Your task to perform on an android device: Show me productivity apps on the Play Store Image 0: 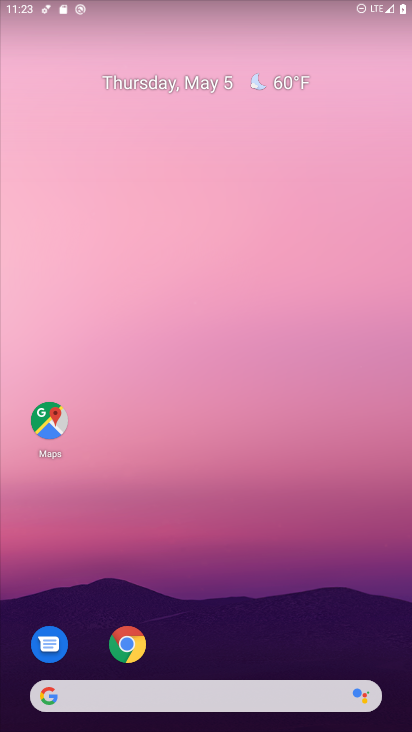
Step 0: drag from (351, 619) to (338, 198)
Your task to perform on an android device: Show me productivity apps on the Play Store Image 1: 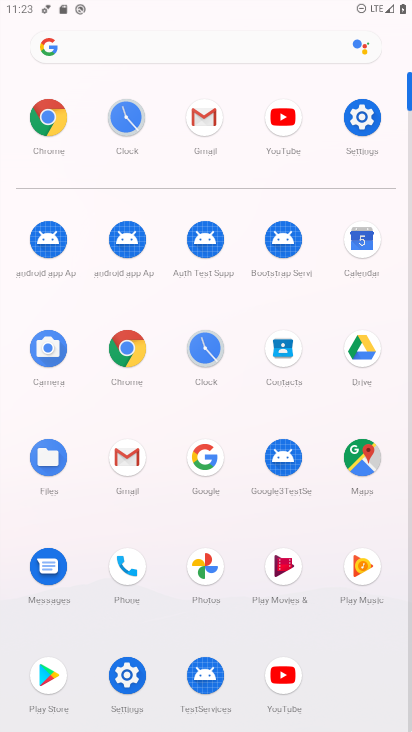
Step 1: click (51, 680)
Your task to perform on an android device: Show me productivity apps on the Play Store Image 2: 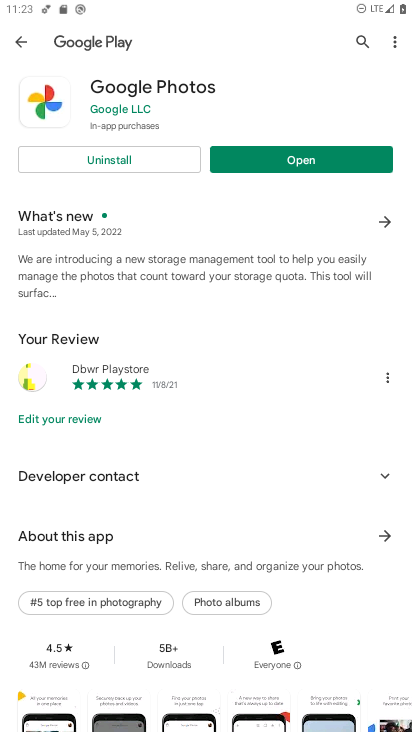
Step 2: click (19, 39)
Your task to perform on an android device: Show me productivity apps on the Play Store Image 3: 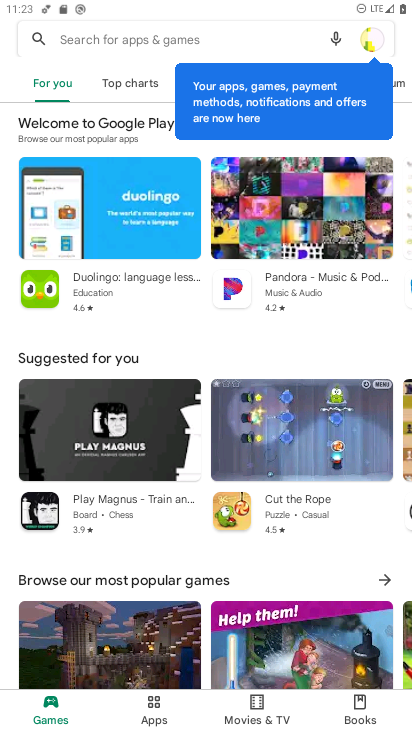
Step 3: click (153, 708)
Your task to perform on an android device: Show me productivity apps on the Play Store Image 4: 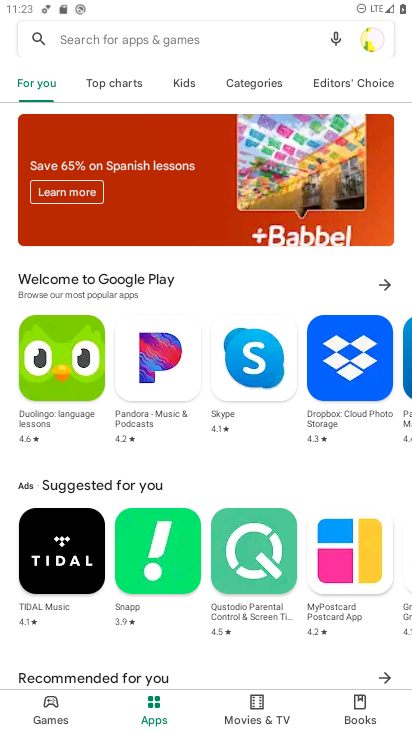
Step 4: click (269, 84)
Your task to perform on an android device: Show me productivity apps on the Play Store Image 5: 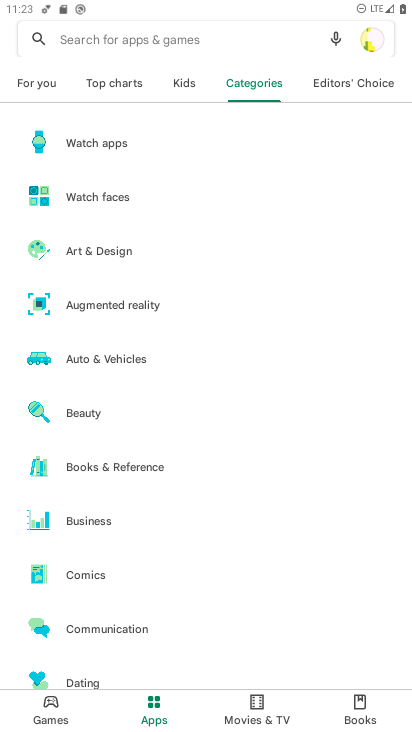
Step 5: drag from (199, 575) to (237, 265)
Your task to perform on an android device: Show me productivity apps on the Play Store Image 6: 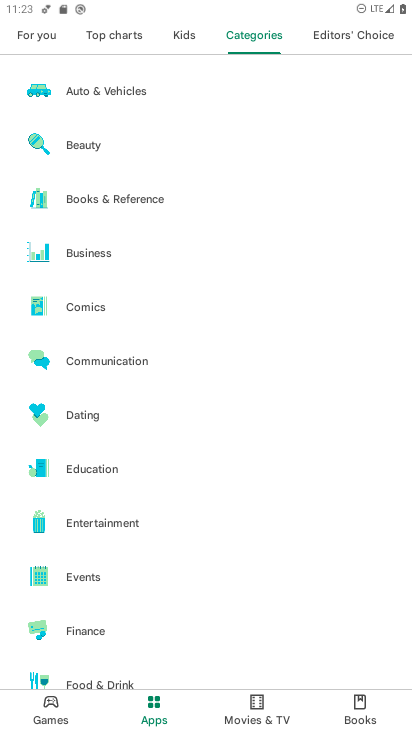
Step 6: drag from (230, 585) to (220, 152)
Your task to perform on an android device: Show me productivity apps on the Play Store Image 7: 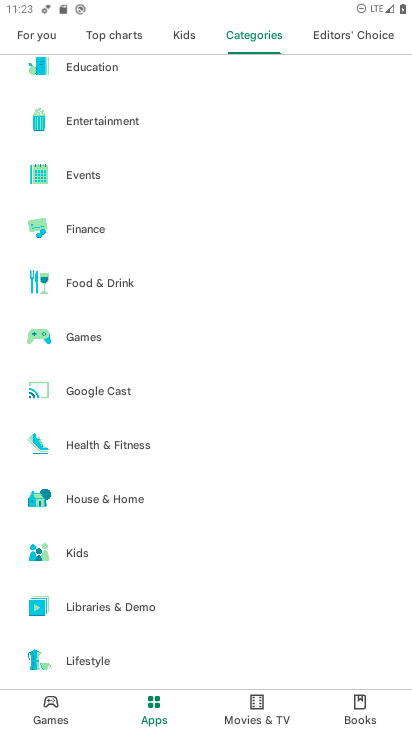
Step 7: drag from (179, 606) to (231, 227)
Your task to perform on an android device: Show me productivity apps on the Play Store Image 8: 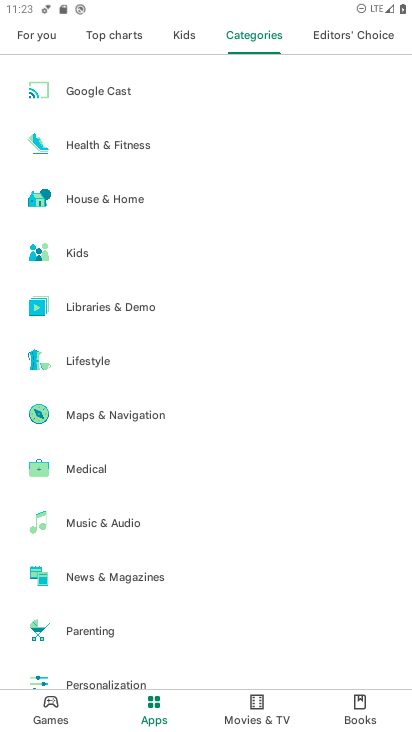
Step 8: drag from (219, 575) to (248, 191)
Your task to perform on an android device: Show me productivity apps on the Play Store Image 9: 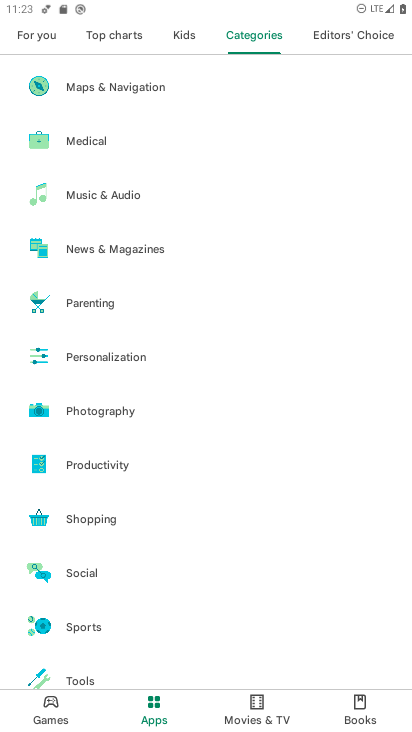
Step 9: click (86, 462)
Your task to perform on an android device: Show me productivity apps on the Play Store Image 10: 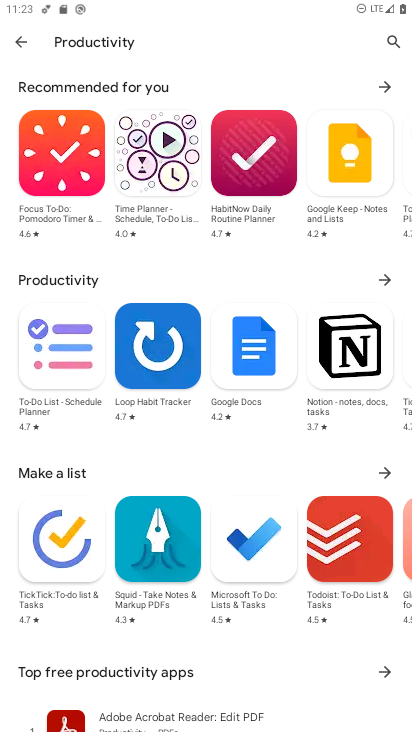
Step 10: task complete